Your task to perform on an android device: Clear all items from cart on ebay.com. Search for razer blade on ebay.com, select the first entry, and add it to the cart. Image 0: 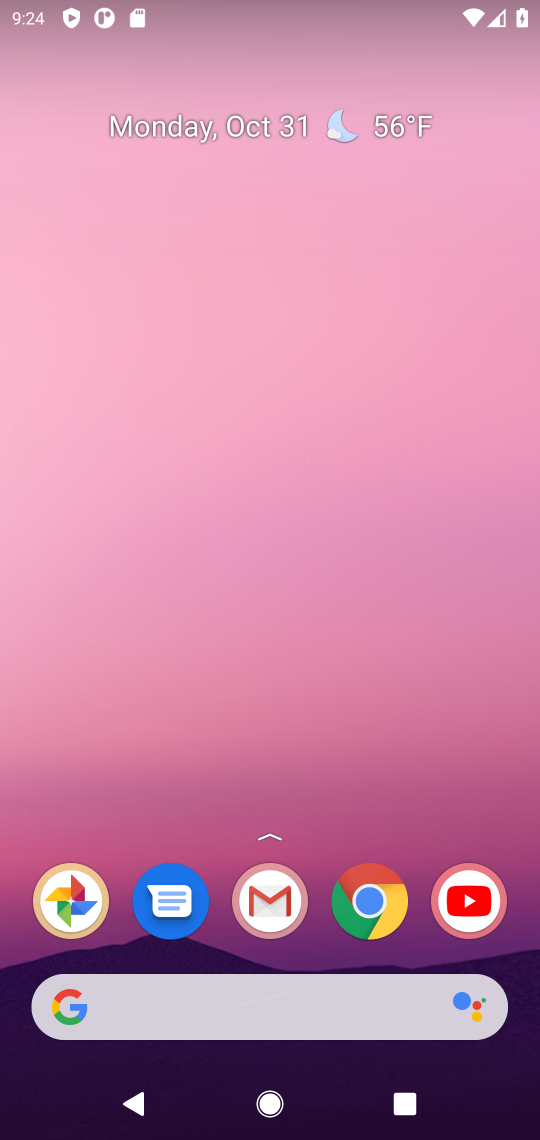
Step 0: drag from (146, 968) to (153, 285)
Your task to perform on an android device: Clear all items from cart on ebay.com. Search for razer blade on ebay.com, select the first entry, and add it to the cart. Image 1: 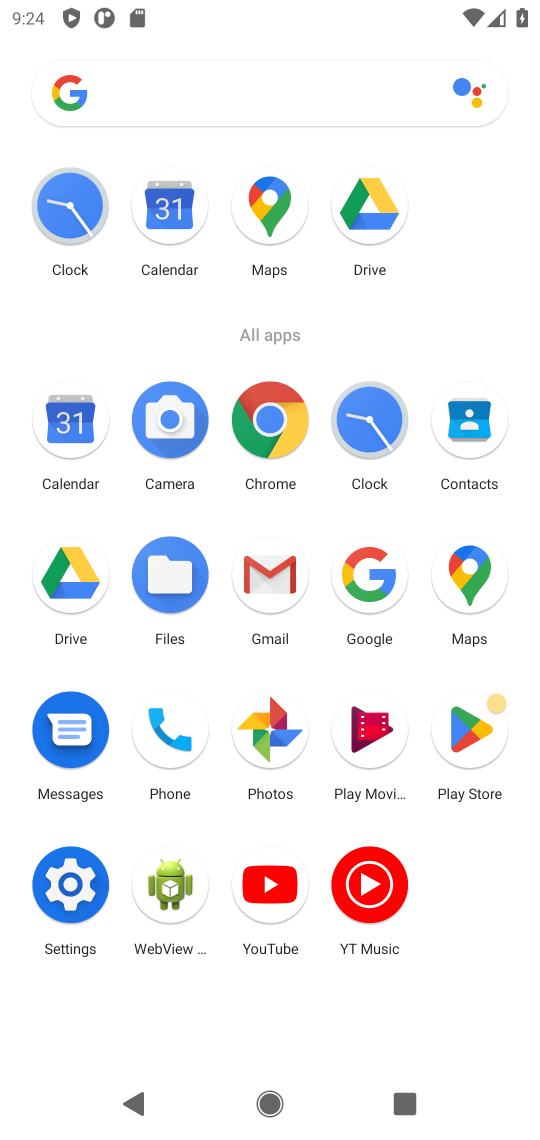
Step 1: click (356, 568)
Your task to perform on an android device: Clear all items from cart on ebay.com. Search for razer blade on ebay.com, select the first entry, and add it to the cart. Image 2: 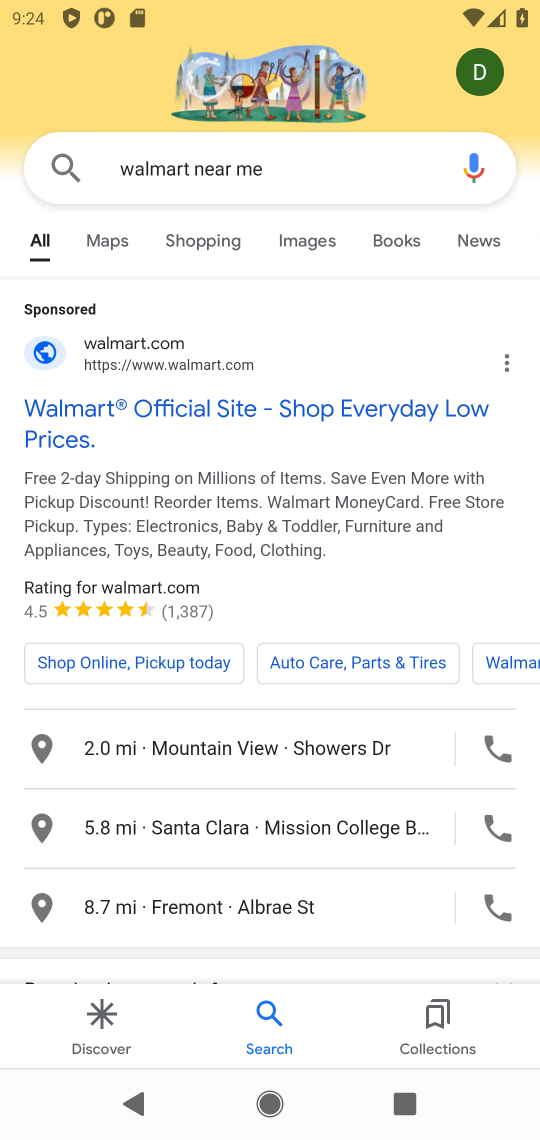
Step 2: click (298, 171)
Your task to perform on an android device: Clear all items from cart on ebay.com. Search for razer blade on ebay.com, select the first entry, and add it to the cart. Image 3: 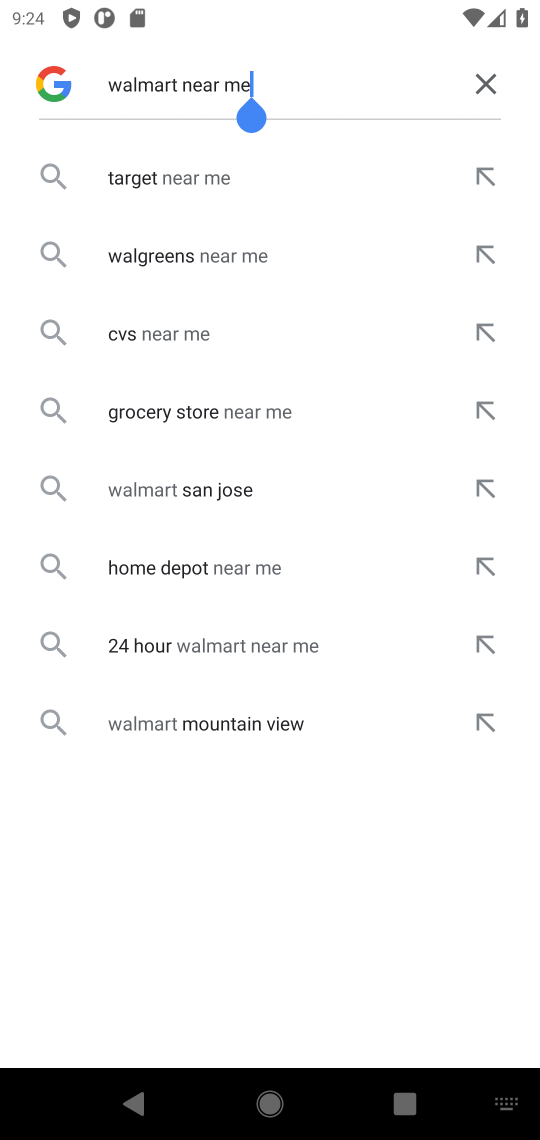
Step 3: click (472, 95)
Your task to perform on an android device: Clear all items from cart on ebay.com. Search for razer blade on ebay.com, select the first entry, and add it to the cart. Image 4: 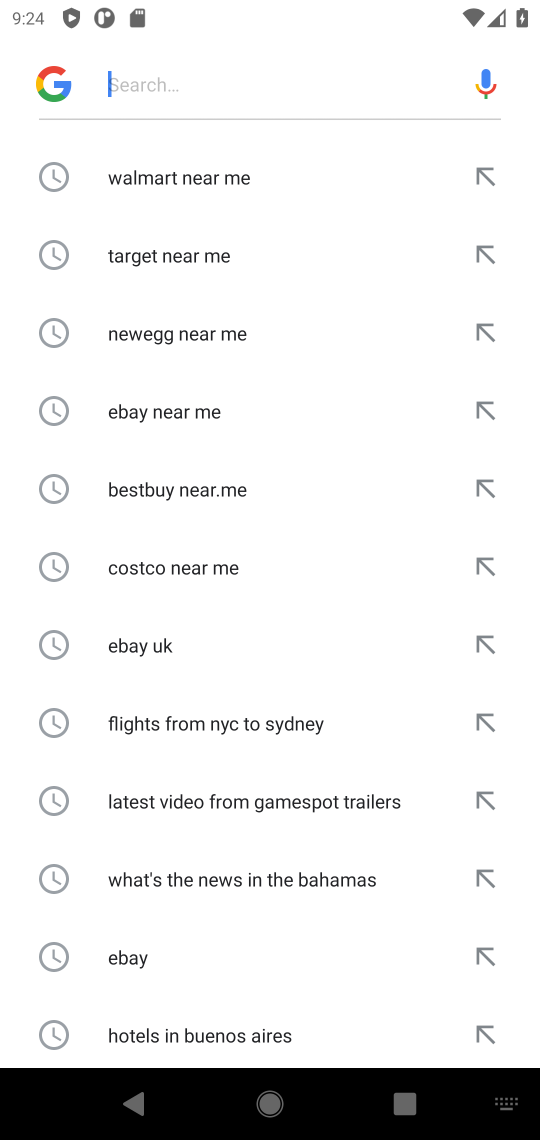
Step 4: click (157, 73)
Your task to perform on an android device: Clear all items from cart on ebay.com. Search for razer blade on ebay.com, select the first entry, and add it to the cart. Image 5: 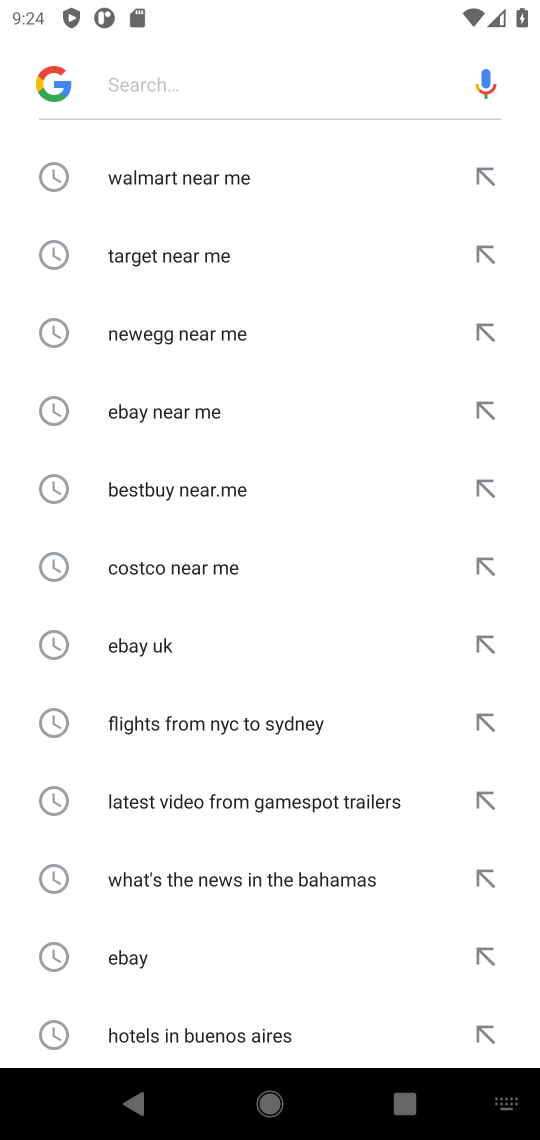
Step 5: type "ebay "
Your task to perform on an android device: Clear all items from cart on ebay.com. Search for razer blade on ebay.com, select the first entry, and add it to the cart. Image 6: 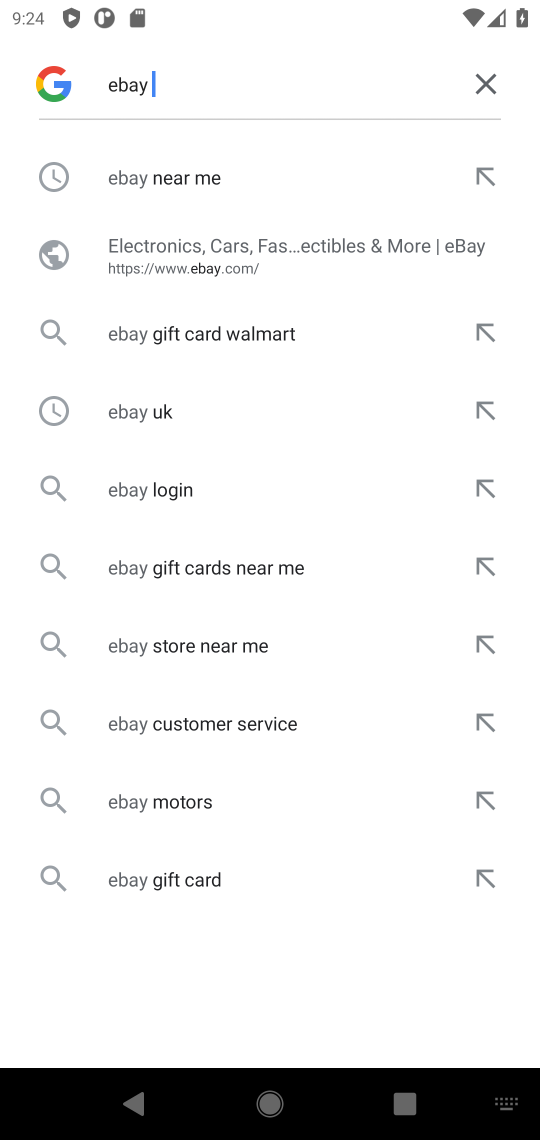
Step 6: click (136, 188)
Your task to perform on an android device: Clear all items from cart on ebay.com. Search for razer blade on ebay.com, select the first entry, and add it to the cart. Image 7: 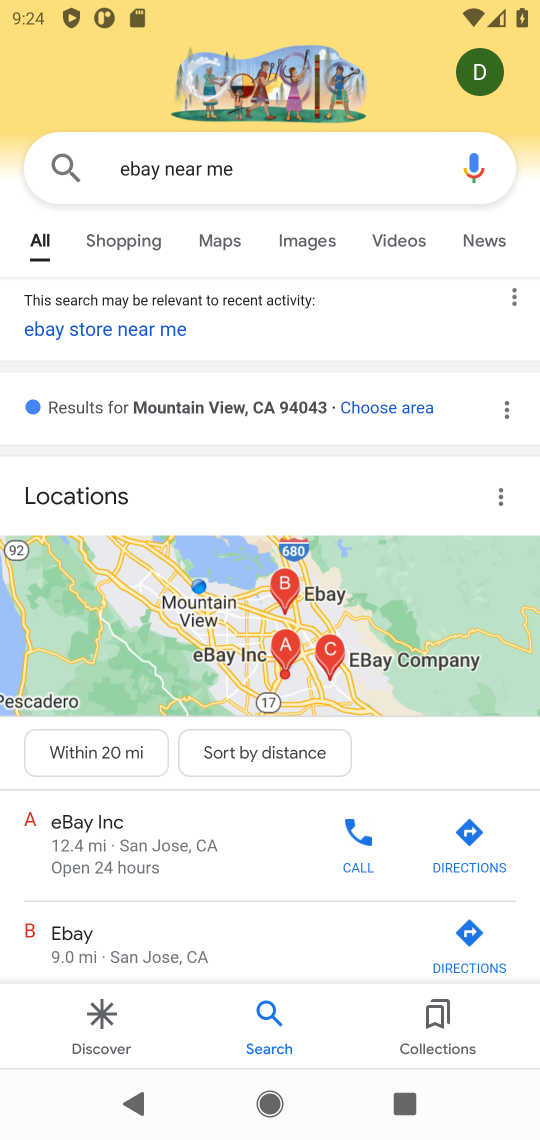
Step 7: drag from (155, 880) to (292, 183)
Your task to perform on an android device: Clear all items from cart on ebay.com. Search for razer blade on ebay.com, select the first entry, and add it to the cart. Image 8: 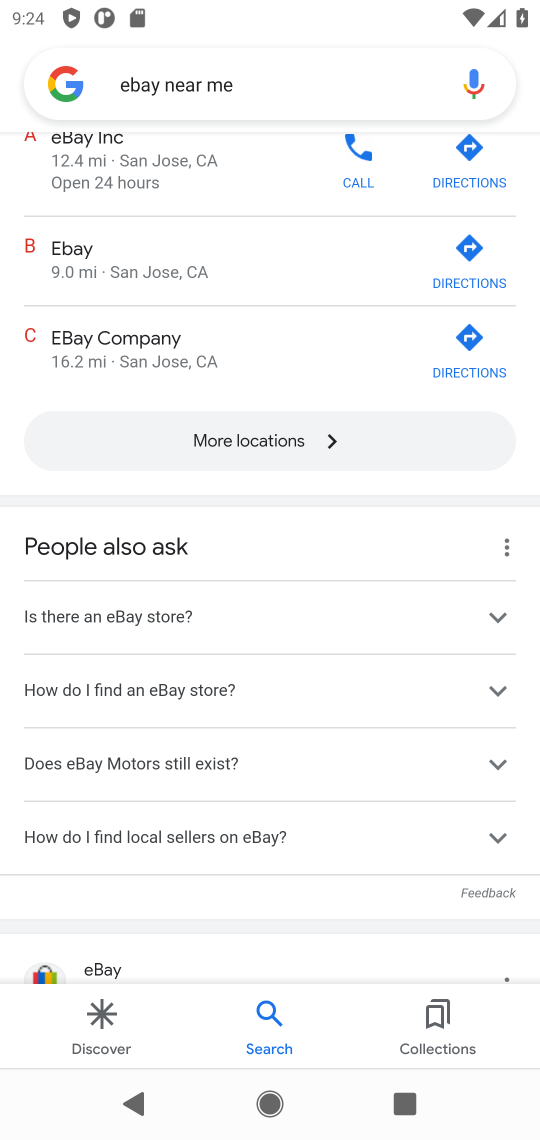
Step 8: drag from (127, 889) to (224, 301)
Your task to perform on an android device: Clear all items from cart on ebay.com. Search for razer blade on ebay.com, select the first entry, and add it to the cart. Image 9: 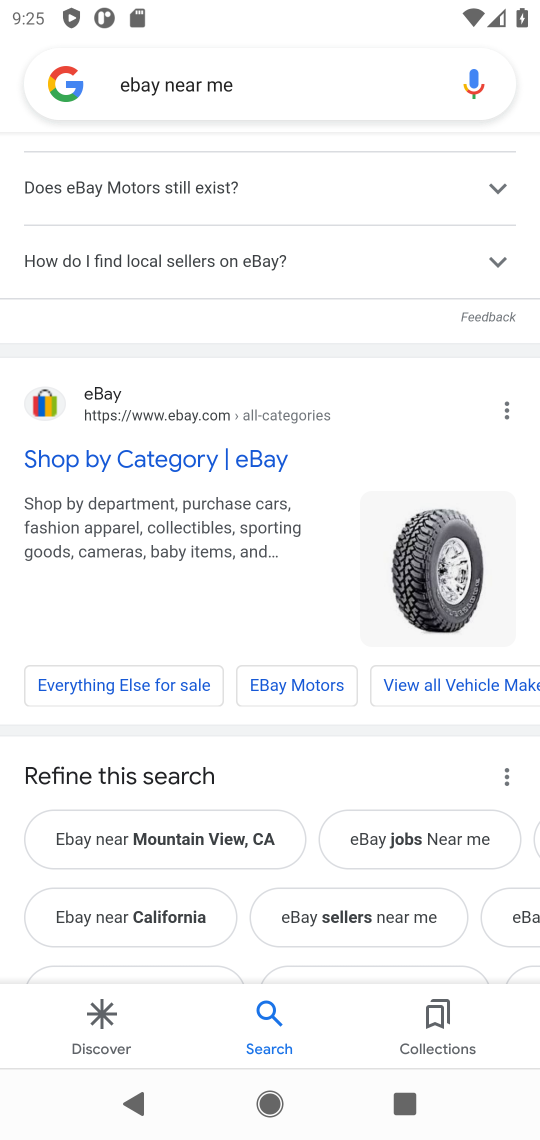
Step 9: click (44, 402)
Your task to perform on an android device: Clear all items from cart on ebay.com. Search for razer blade on ebay.com, select the first entry, and add it to the cart. Image 10: 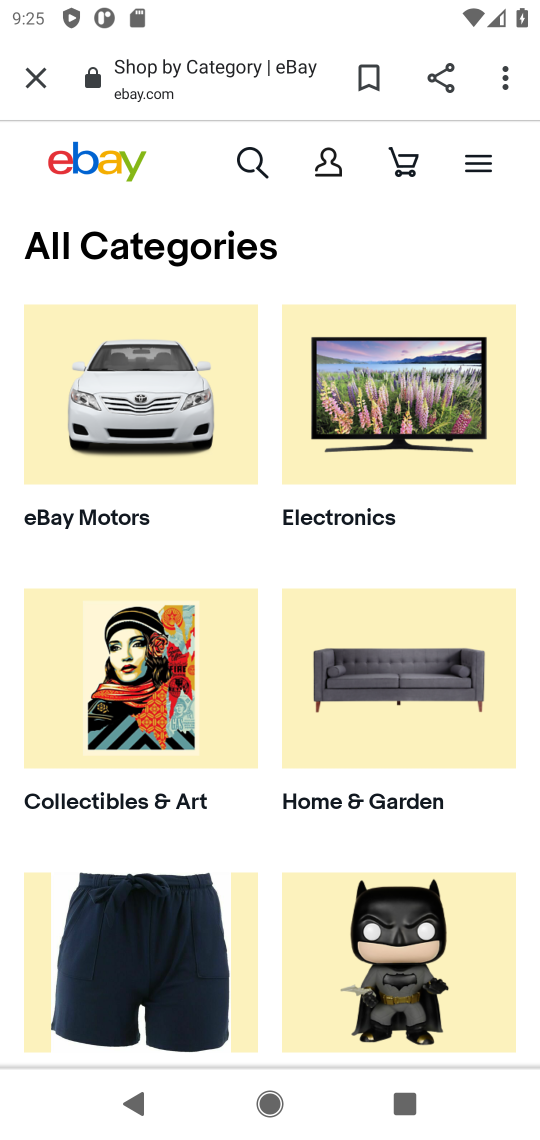
Step 10: click (404, 154)
Your task to perform on an android device: Clear all items from cart on ebay.com. Search for razer blade on ebay.com, select the first entry, and add it to the cart. Image 11: 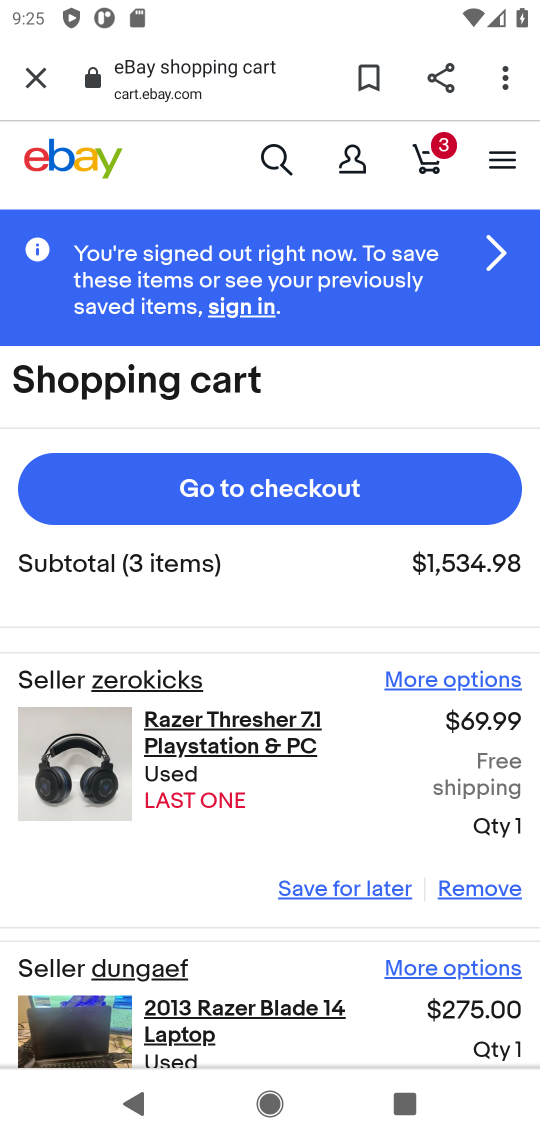
Step 11: drag from (446, 866) to (483, 294)
Your task to perform on an android device: Clear all items from cart on ebay.com. Search for razer blade on ebay.com, select the first entry, and add it to the cart. Image 12: 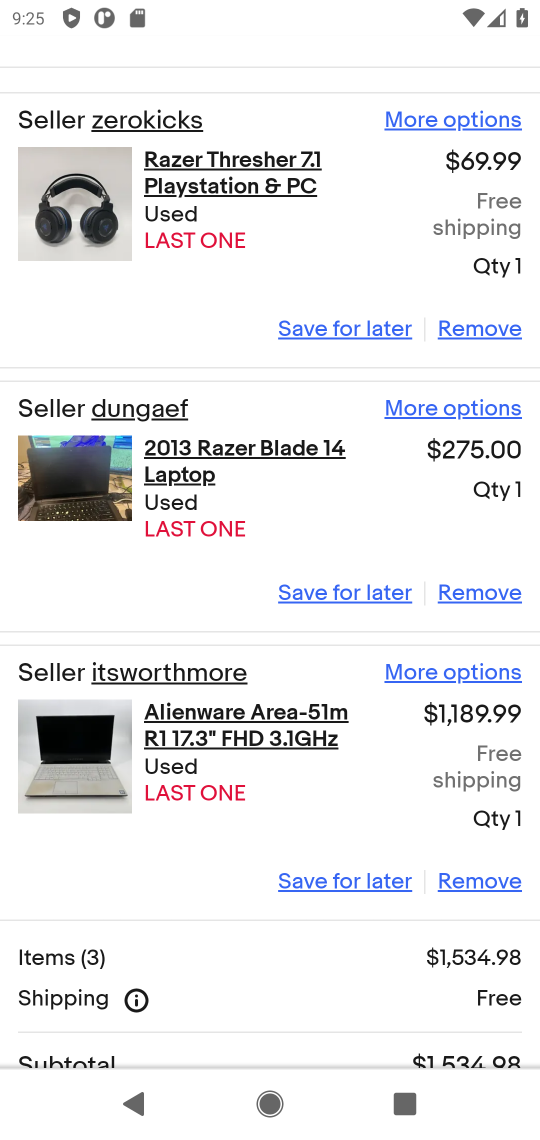
Step 12: click (476, 320)
Your task to perform on an android device: Clear all items from cart on ebay.com. Search for razer blade on ebay.com, select the first entry, and add it to the cart. Image 13: 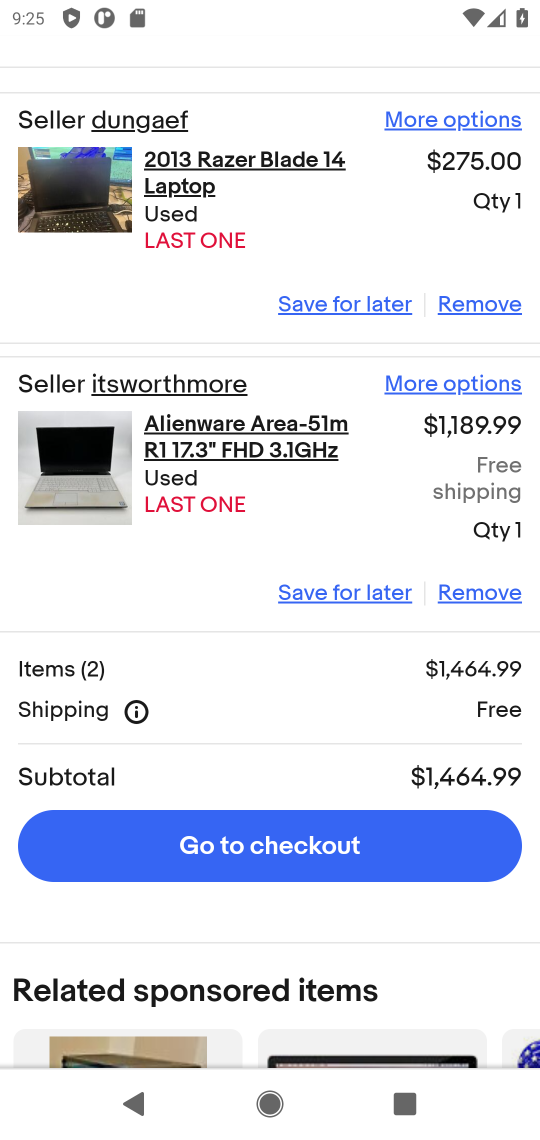
Step 13: click (469, 308)
Your task to perform on an android device: Clear all items from cart on ebay.com. Search for razer blade on ebay.com, select the first entry, and add it to the cart. Image 14: 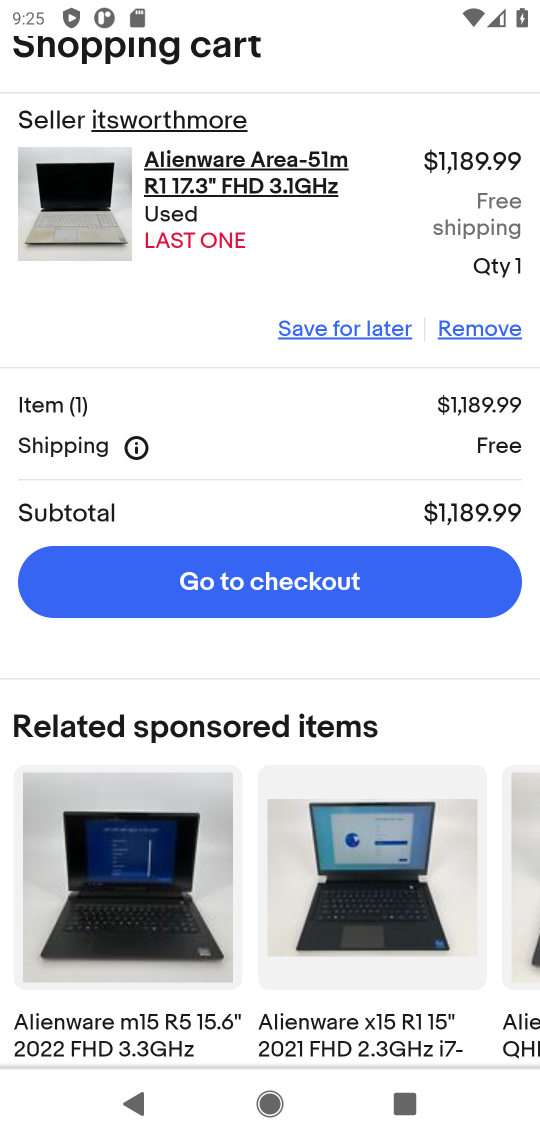
Step 14: click (450, 323)
Your task to perform on an android device: Clear all items from cart on ebay.com. Search for razer blade on ebay.com, select the first entry, and add it to the cart. Image 15: 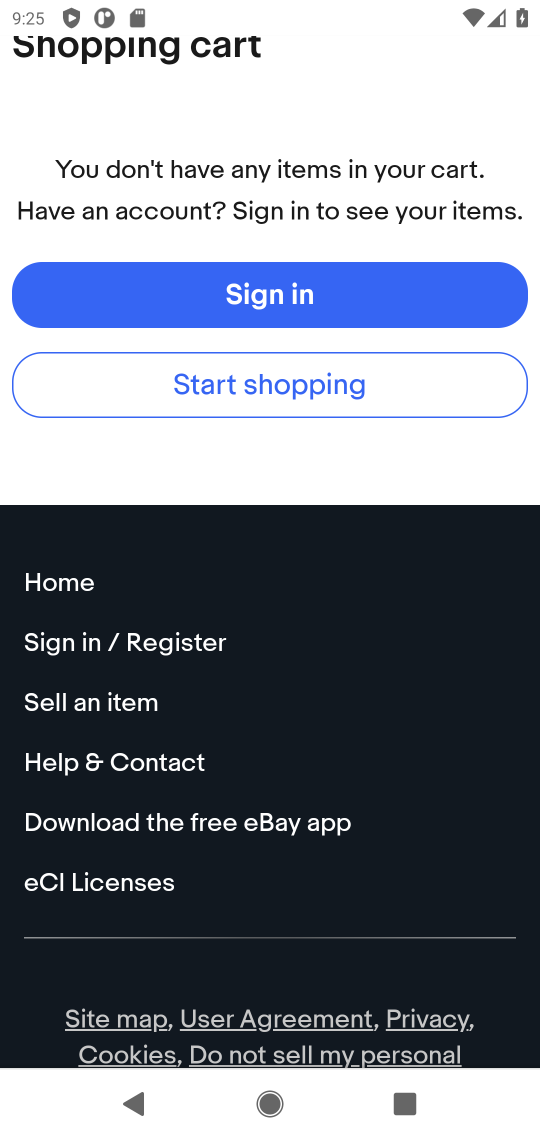
Step 15: task complete